Your task to perform on an android device: Go to wifi settings Image 0: 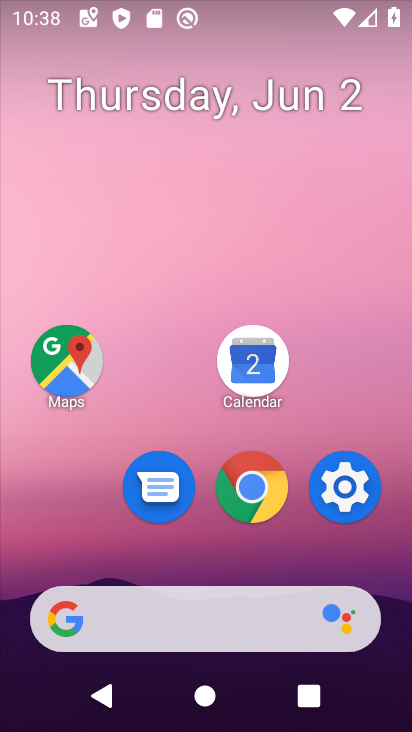
Step 0: press home button
Your task to perform on an android device: Go to wifi settings Image 1: 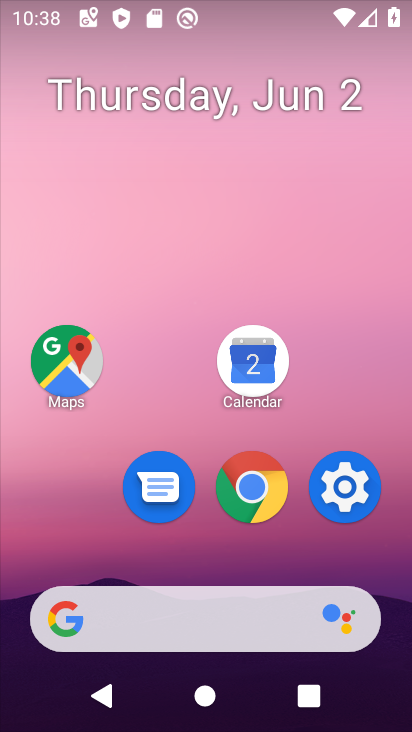
Step 1: click (352, 475)
Your task to perform on an android device: Go to wifi settings Image 2: 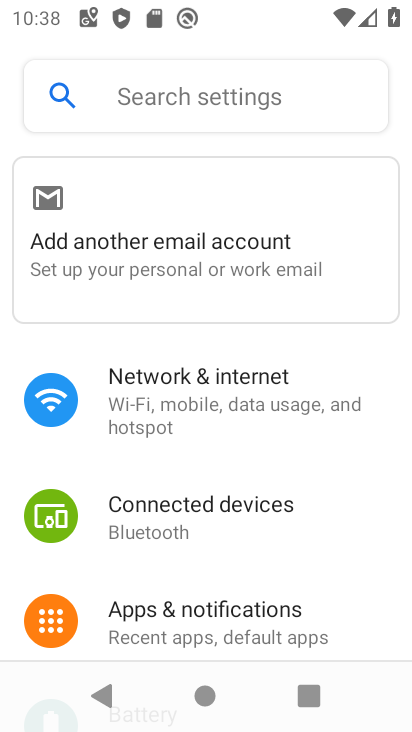
Step 2: click (227, 399)
Your task to perform on an android device: Go to wifi settings Image 3: 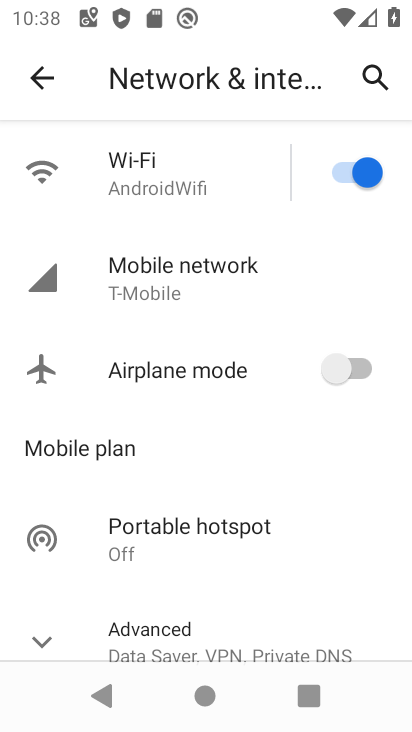
Step 3: task complete